Your task to perform on an android device: delete location history Image 0: 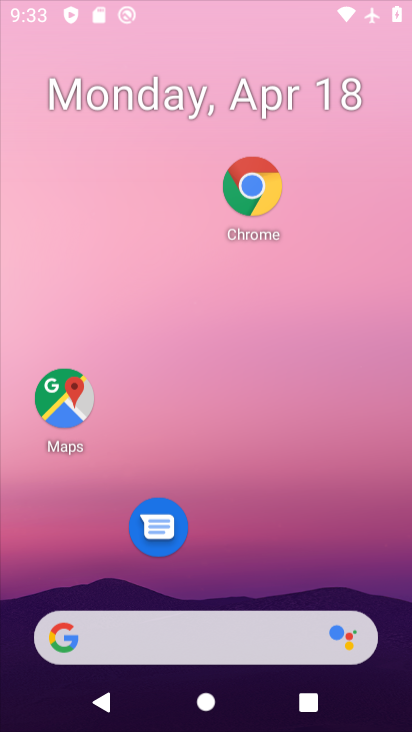
Step 0: drag from (308, 463) to (322, 100)
Your task to perform on an android device: delete location history Image 1: 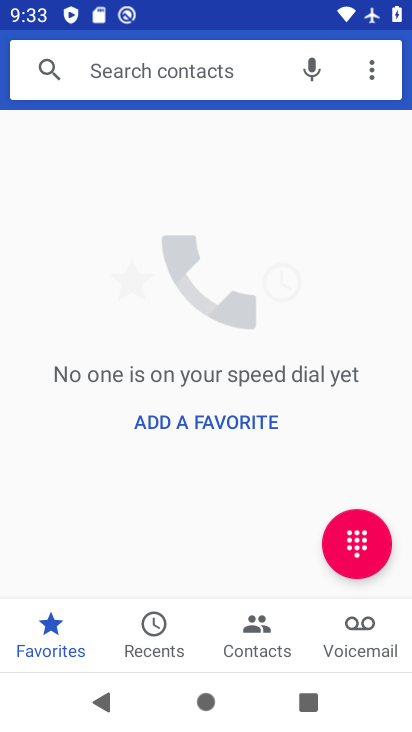
Step 1: press home button
Your task to perform on an android device: delete location history Image 2: 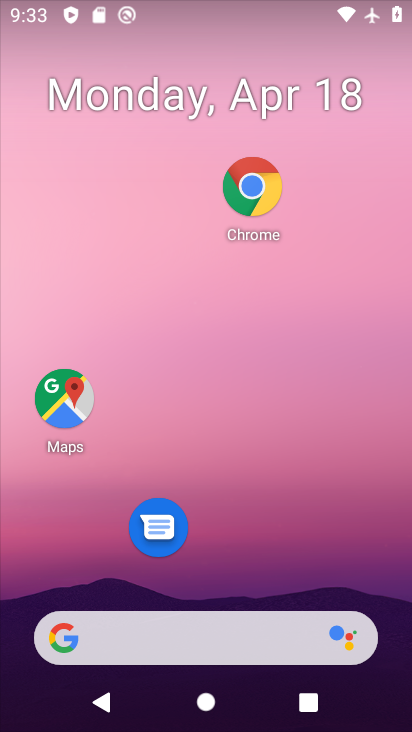
Step 2: drag from (283, 563) to (334, 141)
Your task to perform on an android device: delete location history Image 3: 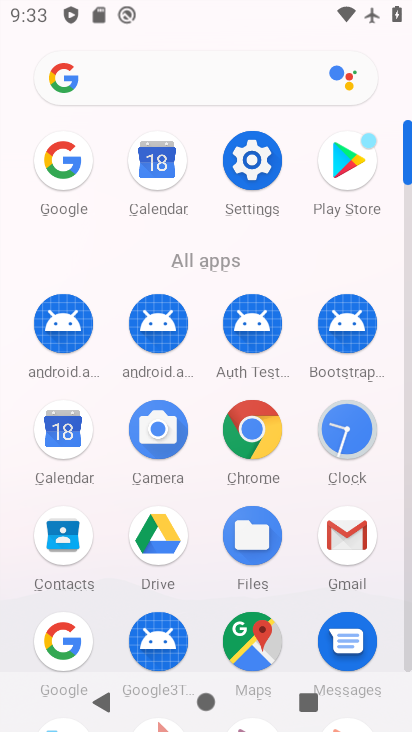
Step 3: click (244, 158)
Your task to perform on an android device: delete location history Image 4: 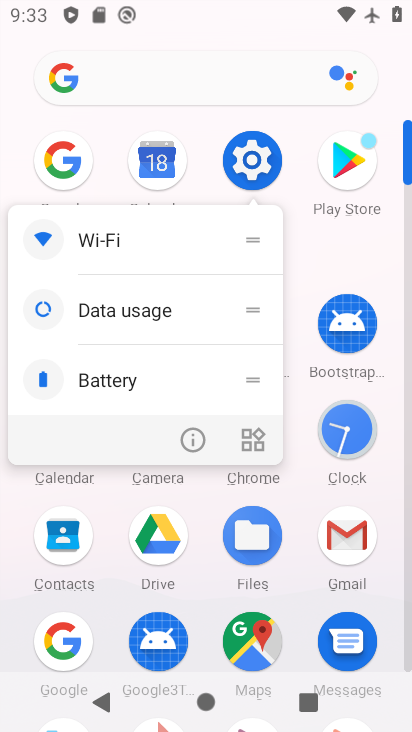
Step 4: click (242, 161)
Your task to perform on an android device: delete location history Image 5: 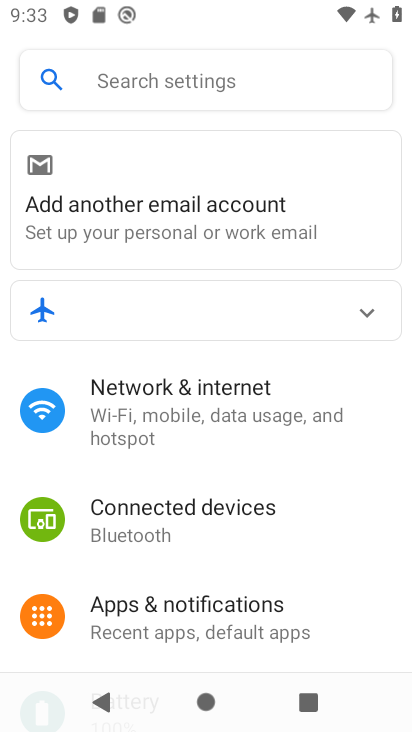
Step 5: drag from (327, 548) to (306, 160)
Your task to perform on an android device: delete location history Image 6: 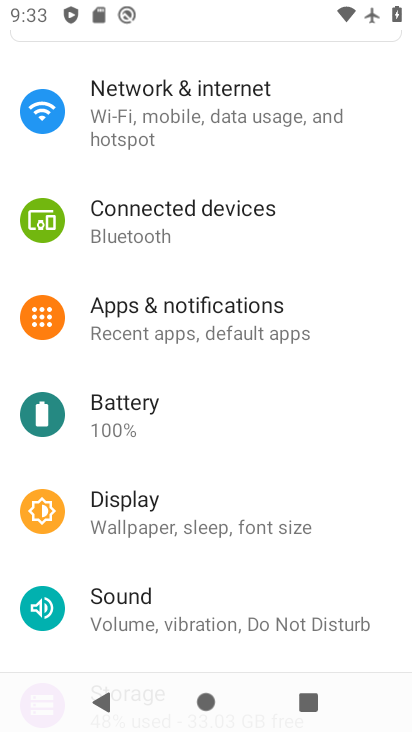
Step 6: drag from (217, 549) to (277, 150)
Your task to perform on an android device: delete location history Image 7: 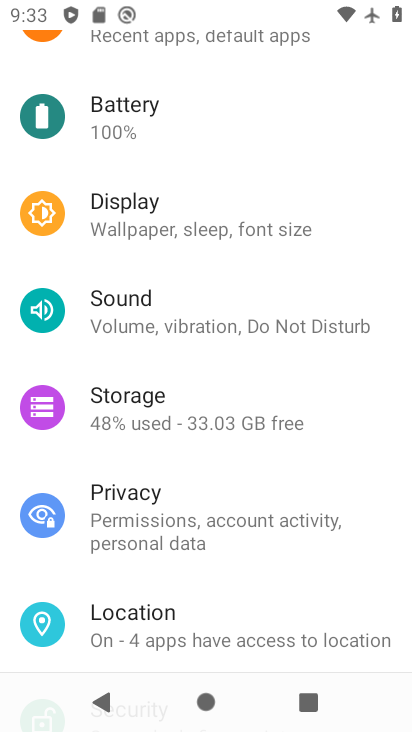
Step 7: click (215, 620)
Your task to perform on an android device: delete location history Image 8: 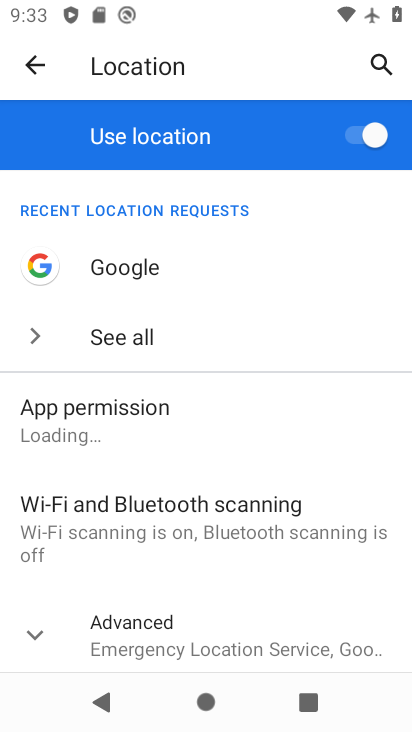
Step 8: drag from (211, 588) to (272, 214)
Your task to perform on an android device: delete location history Image 9: 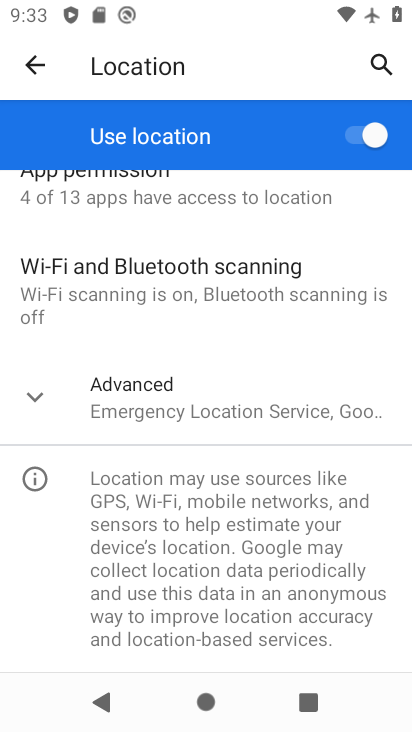
Step 9: click (224, 416)
Your task to perform on an android device: delete location history Image 10: 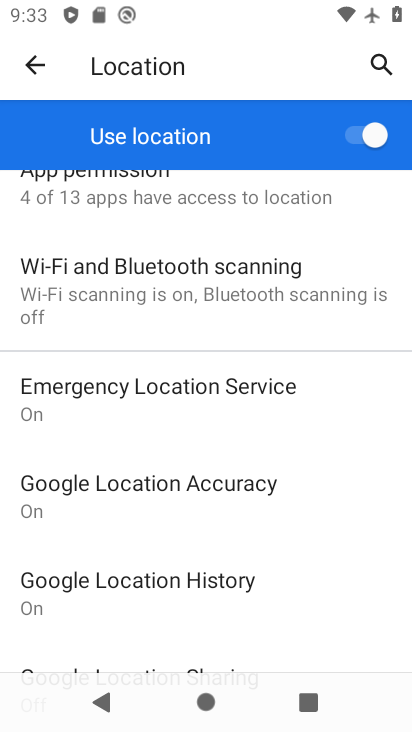
Step 10: click (171, 585)
Your task to perform on an android device: delete location history Image 11: 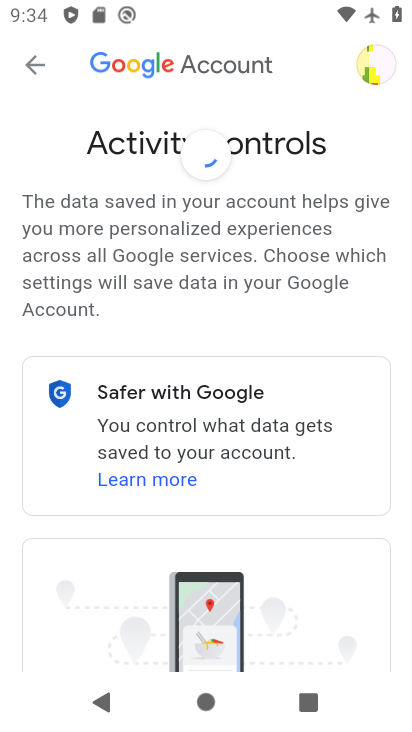
Step 11: drag from (313, 524) to (337, 158)
Your task to perform on an android device: delete location history Image 12: 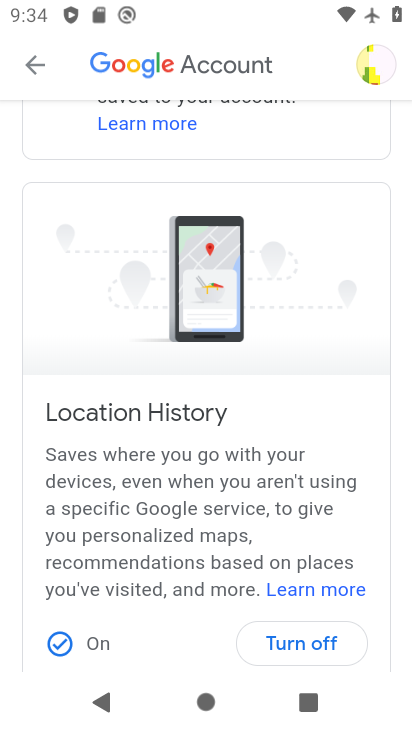
Step 12: drag from (307, 570) to (328, 192)
Your task to perform on an android device: delete location history Image 13: 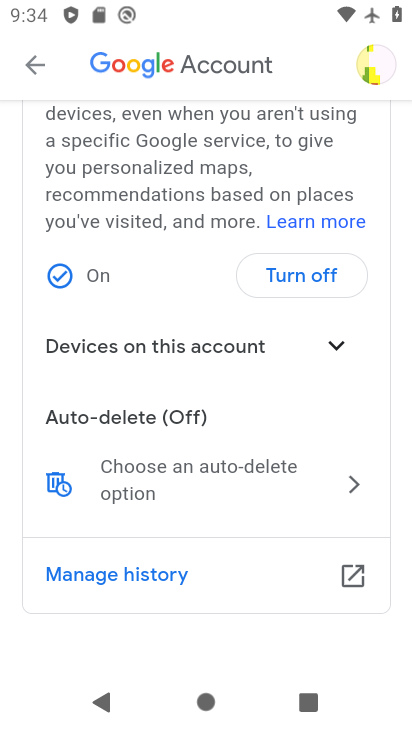
Step 13: click (171, 563)
Your task to perform on an android device: delete location history Image 14: 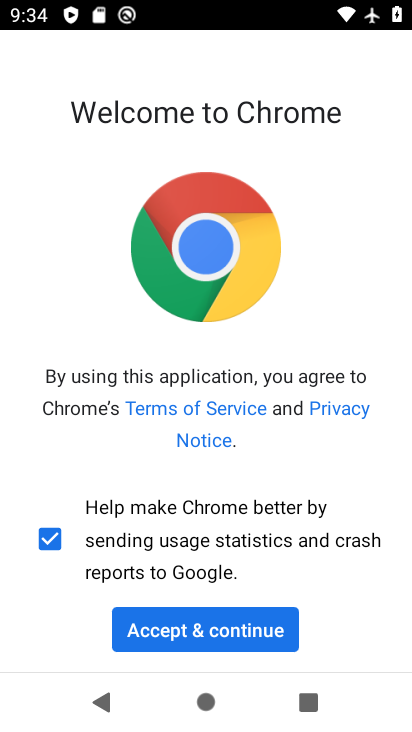
Step 14: click (218, 623)
Your task to perform on an android device: delete location history Image 15: 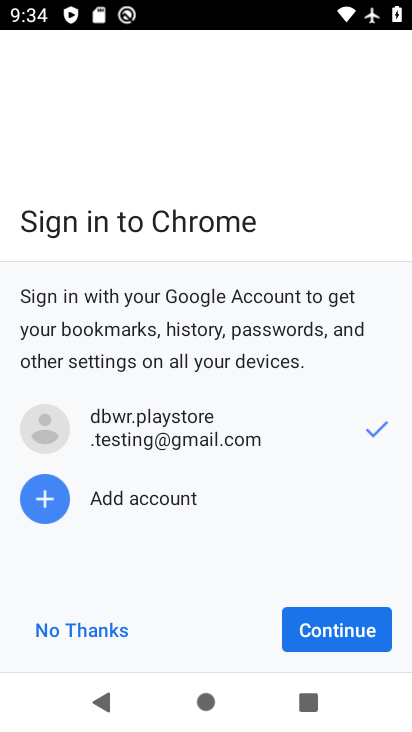
Step 15: click (330, 634)
Your task to perform on an android device: delete location history Image 16: 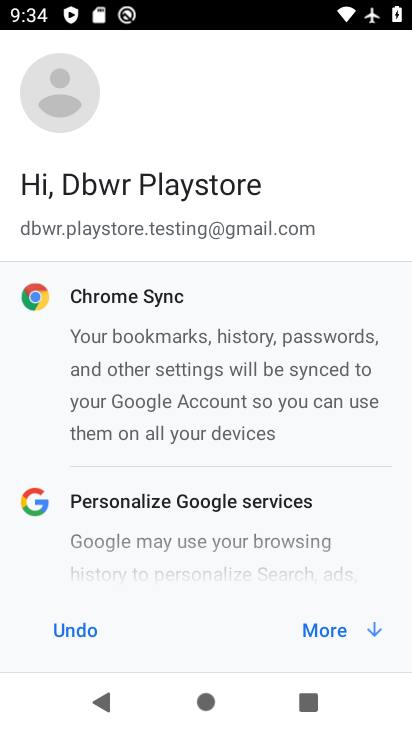
Step 16: click (330, 634)
Your task to perform on an android device: delete location history Image 17: 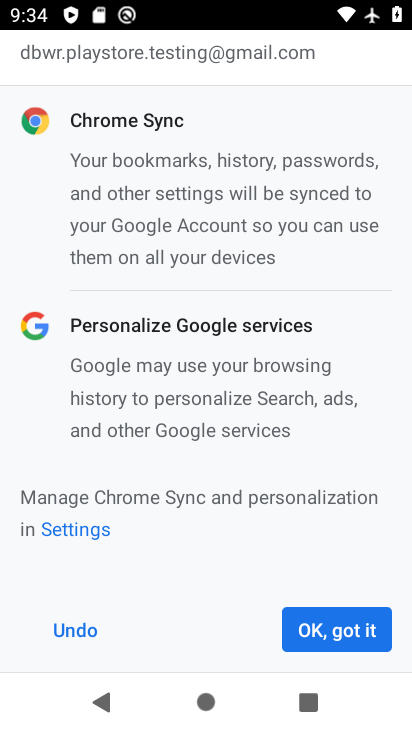
Step 17: click (330, 634)
Your task to perform on an android device: delete location history Image 18: 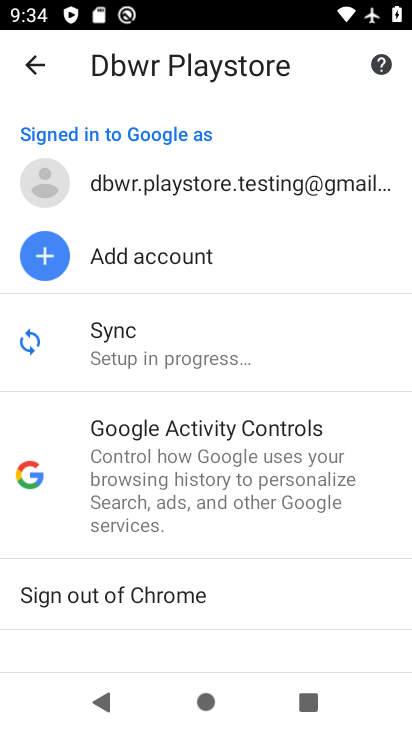
Step 18: drag from (295, 561) to (336, 298)
Your task to perform on an android device: delete location history Image 19: 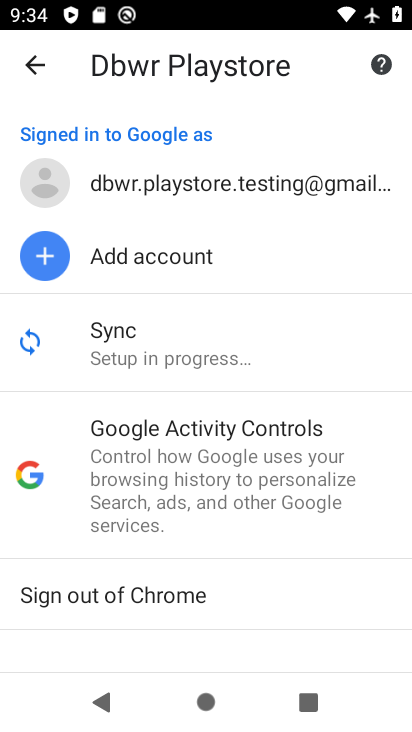
Step 19: click (208, 444)
Your task to perform on an android device: delete location history Image 20: 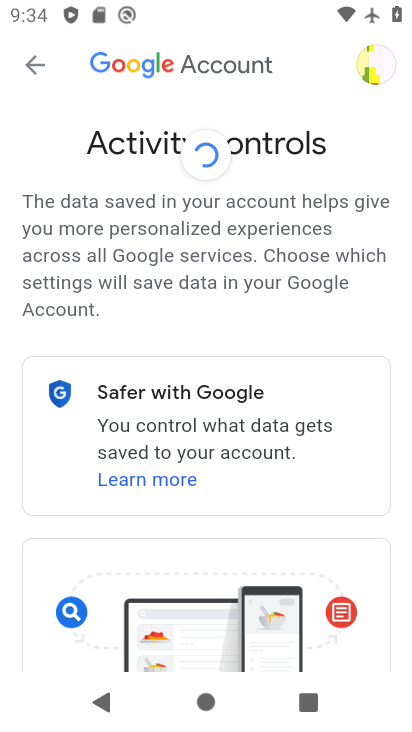
Step 20: drag from (248, 519) to (302, 210)
Your task to perform on an android device: delete location history Image 21: 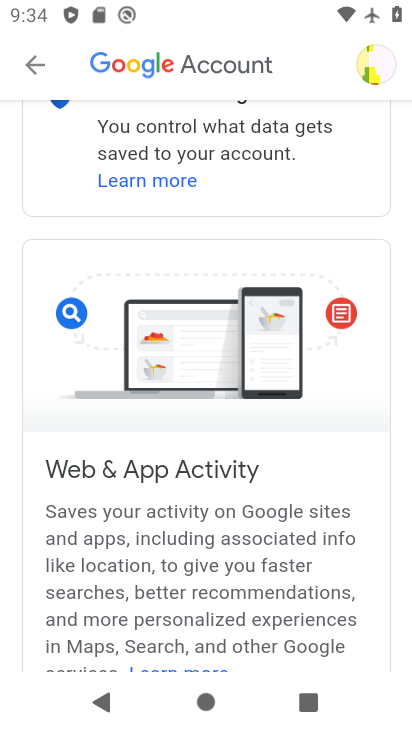
Step 21: drag from (290, 560) to (334, 221)
Your task to perform on an android device: delete location history Image 22: 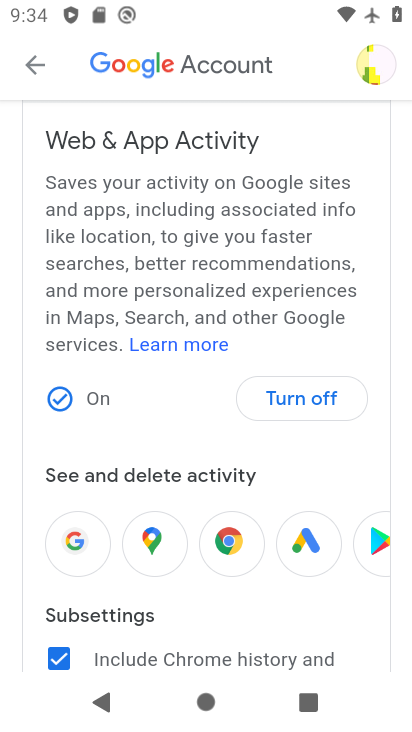
Step 22: drag from (288, 588) to (333, 299)
Your task to perform on an android device: delete location history Image 23: 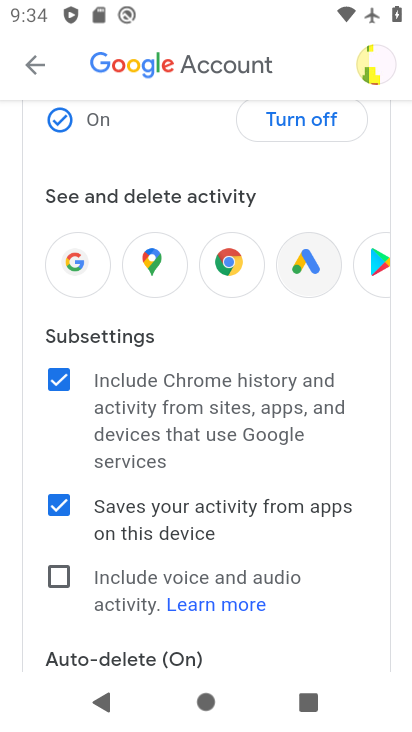
Step 23: click (150, 272)
Your task to perform on an android device: delete location history Image 24: 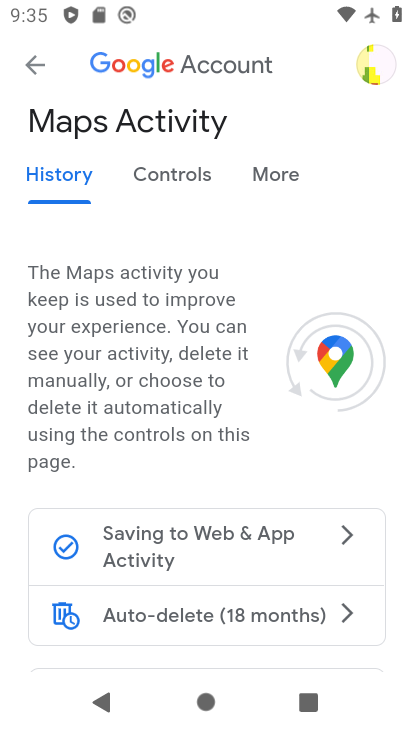
Step 24: drag from (262, 552) to (280, 241)
Your task to perform on an android device: delete location history Image 25: 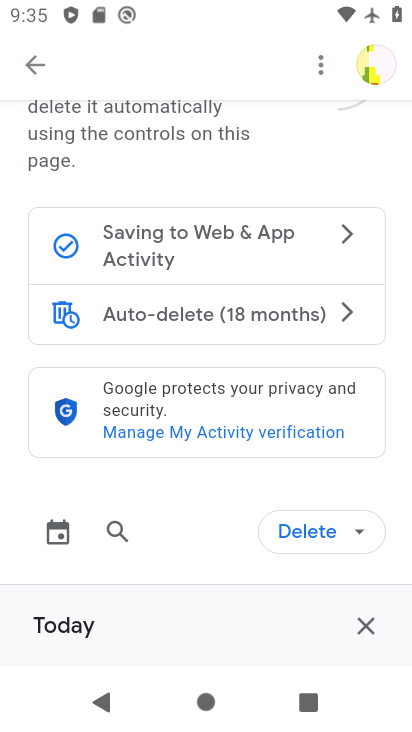
Step 25: drag from (229, 535) to (246, 213)
Your task to perform on an android device: delete location history Image 26: 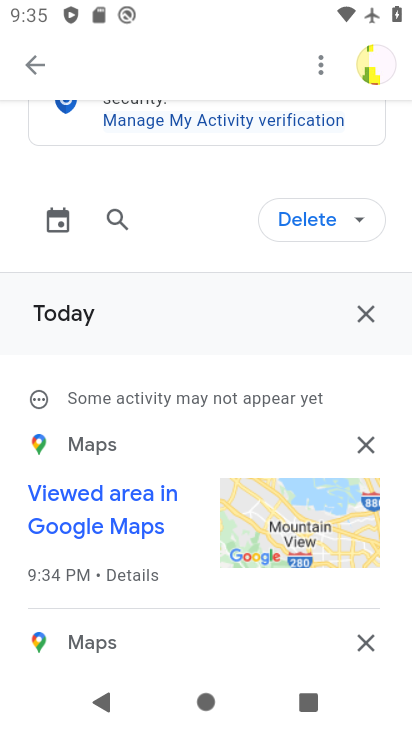
Step 26: click (311, 217)
Your task to perform on an android device: delete location history Image 27: 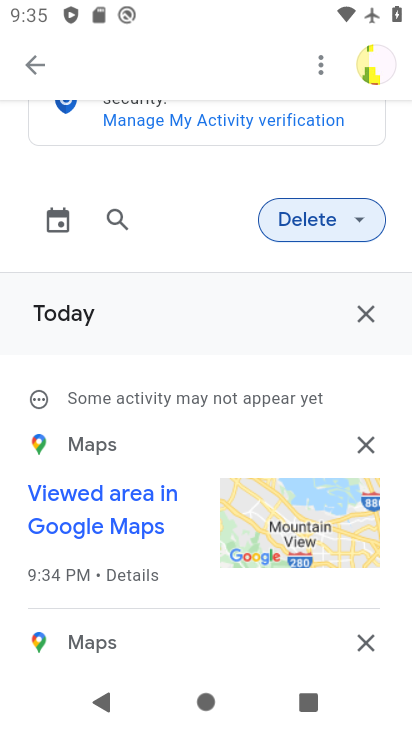
Step 27: drag from (183, 377) to (219, 154)
Your task to perform on an android device: delete location history Image 28: 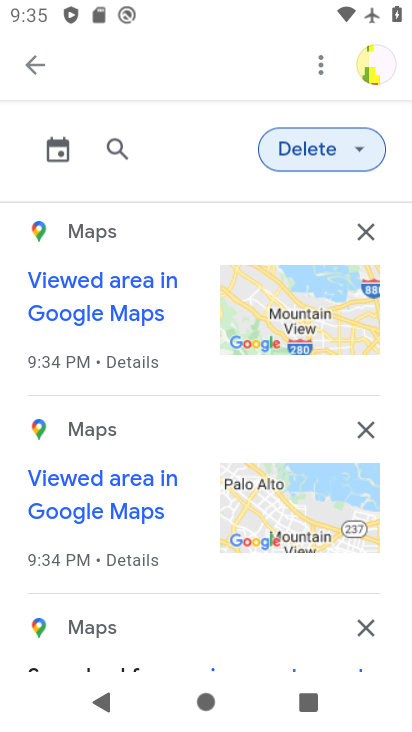
Step 28: click (363, 152)
Your task to perform on an android device: delete location history Image 29: 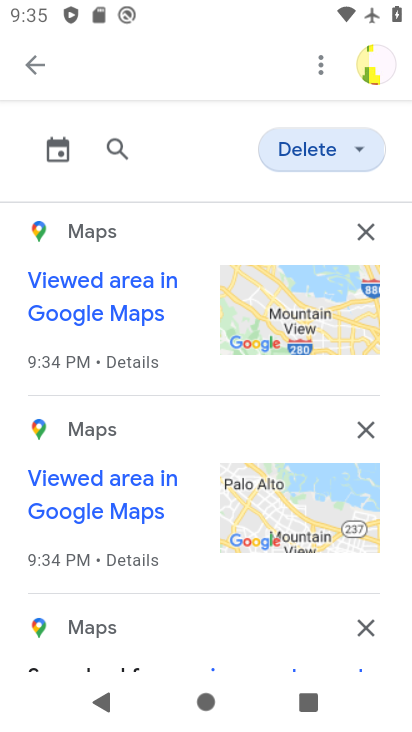
Step 29: click (360, 149)
Your task to perform on an android device: delete location history Image 30: 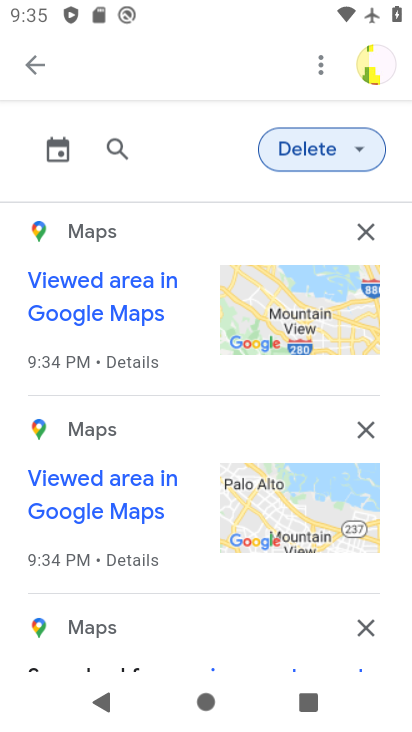
Step 30: click (360, 149)
Your task to perform on an android device: delete location history Image 31: 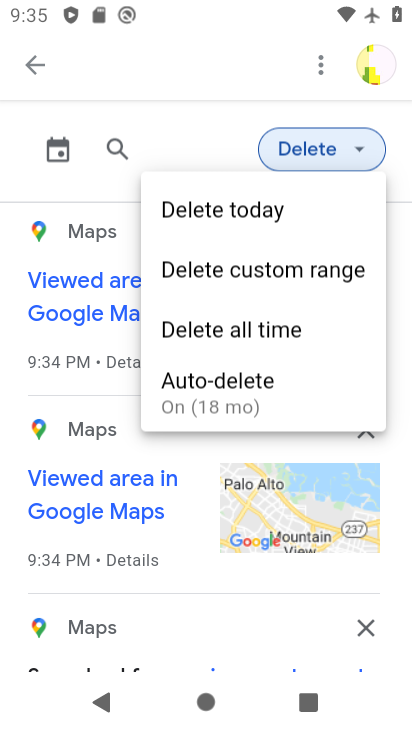
Step 31: click (245, 326)
Your task to perform on an android device: delete location history Image 32: 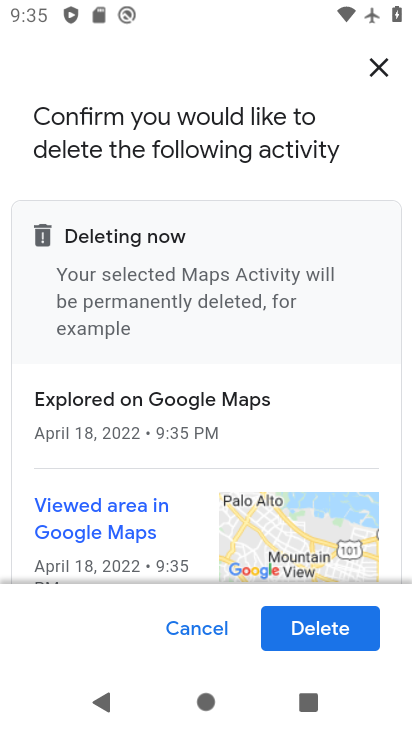
Step 32: click (337, 624)
Your task to perform on an android device: delete location history Image 33: 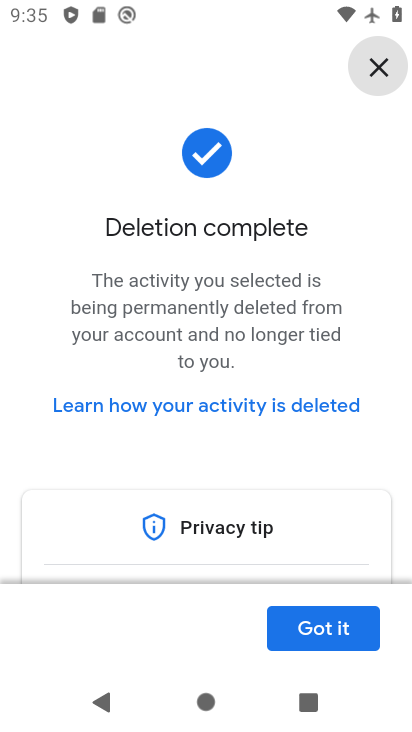
Step 33: click (320, 630)
Your task to perform on an android device: delete location history Image 34: 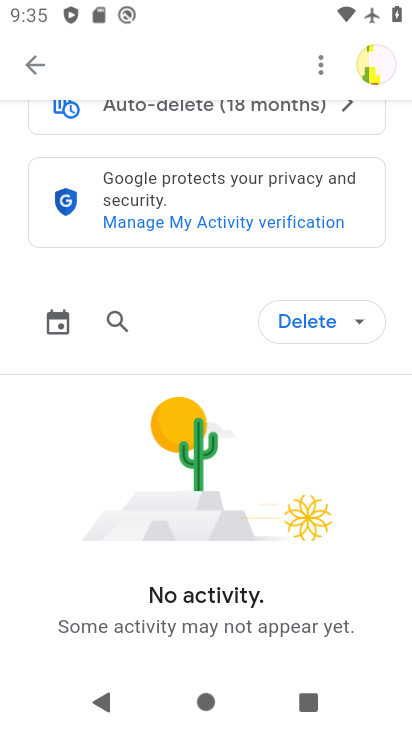
Step 34: task complete